Your task to perform on an android device: Go to Yahoo.com Image 0: 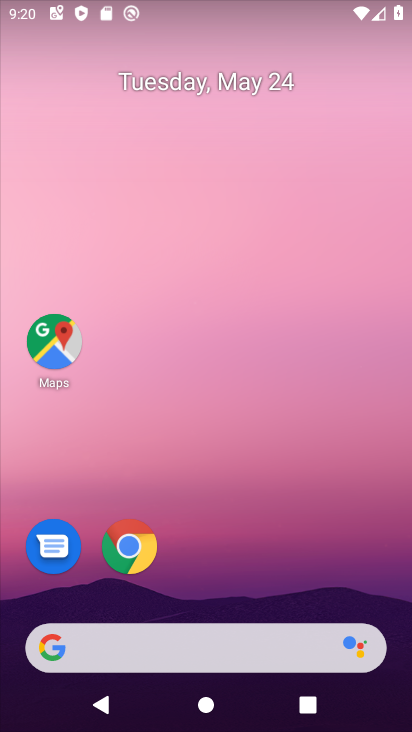
Step 0: click (204, 660)
Your task to perform on an android device: Go to Yahoo.com Image 1: 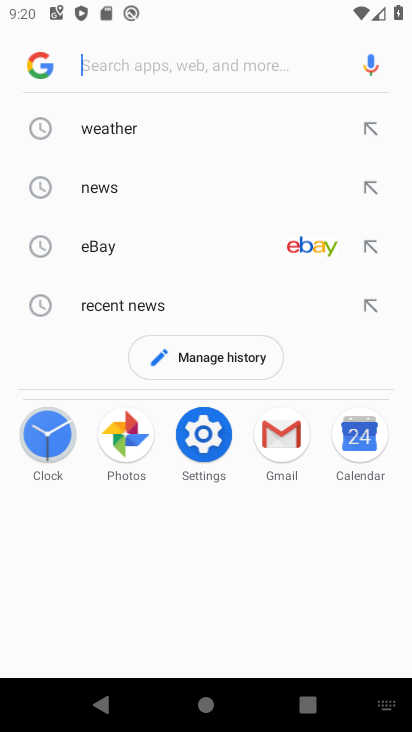
Step 1: type "yahoo.com"
Your task to perform on an android device: Go to Yahoo.com Image 2: 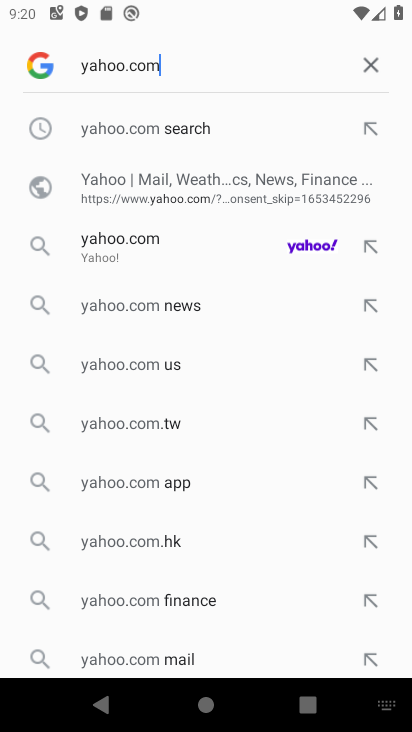
Step 2: click (118, 250)
Your task to perform on an android device: Go to Yahoo.com Image 3: 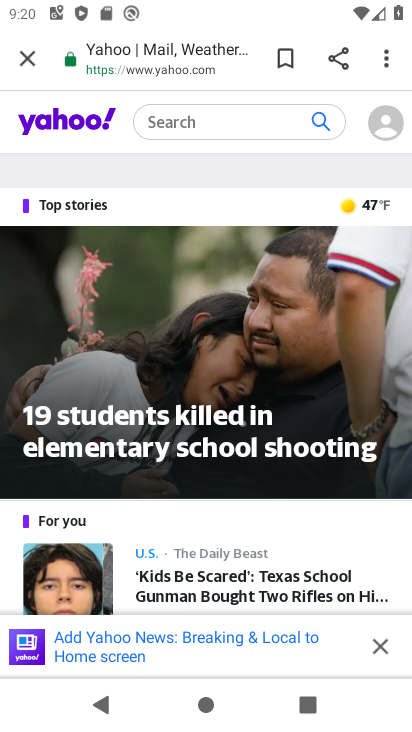
Step 3: task complete